Your task to perform on an android device: turn off translation in the chrome app Image 0: 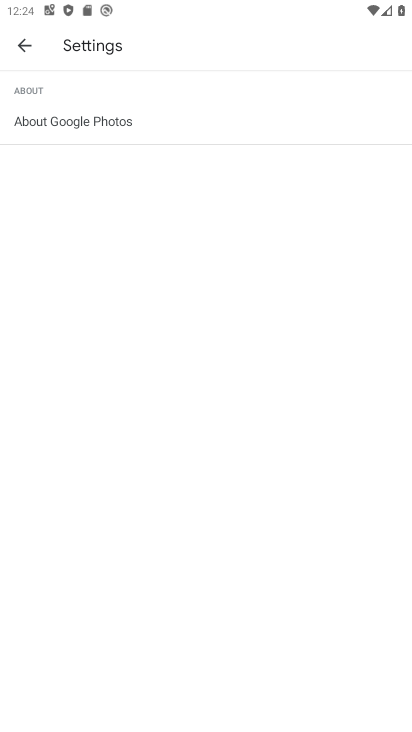
Step 0: press home button
Your task to perform on an android device: turn off translation in the chrome app Image 1: 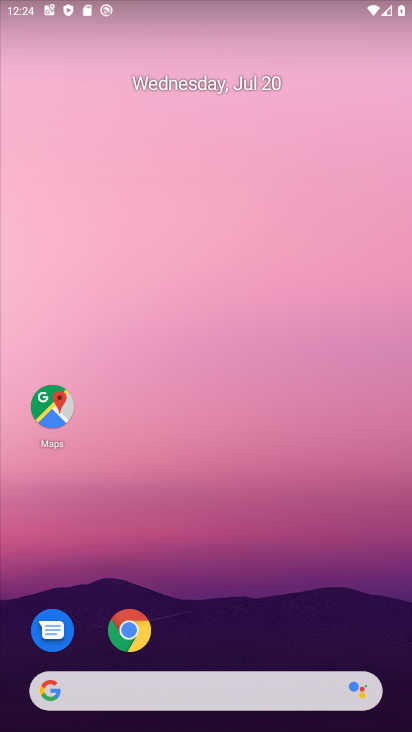
Step 1: click (121, 629)
Your task to perform on an android device: turn off translation in the chrome app Image 2: 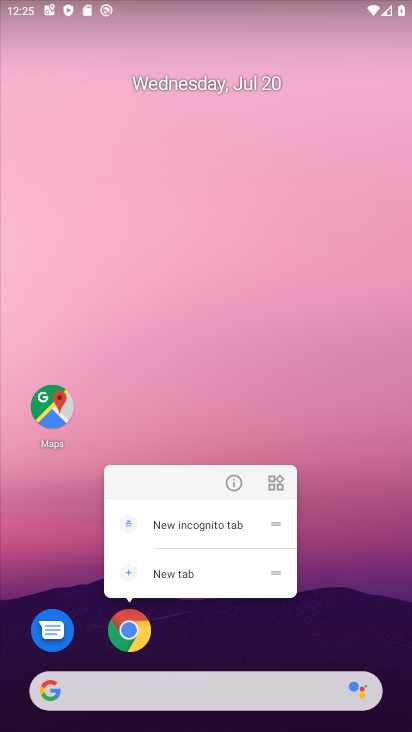
Step 2: click (121, 629)
Your task to perform on an android device: turn off translation in the chrome app Image 3: 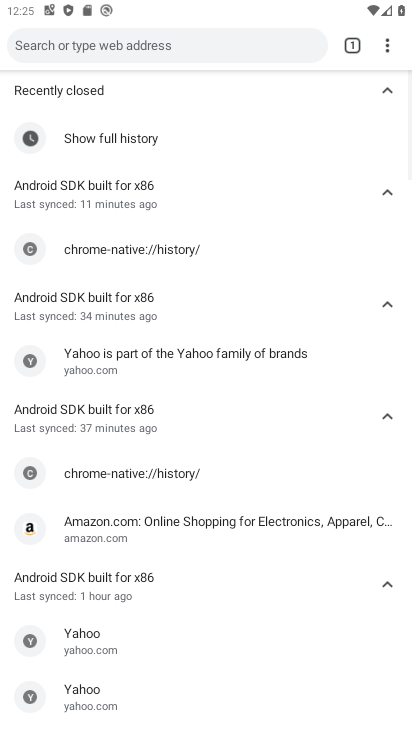
Step 3: drag from (383, 43) to (209, 383)
Your task to perform on an android device: turn off translation in the chrome app Image 4: 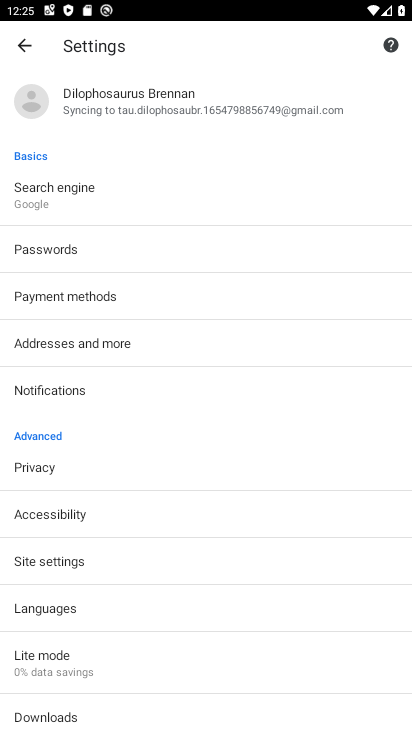
Step 4: click (53, 608)
Your task to perform on an android device: turn off translation in the chrome app Image 5: 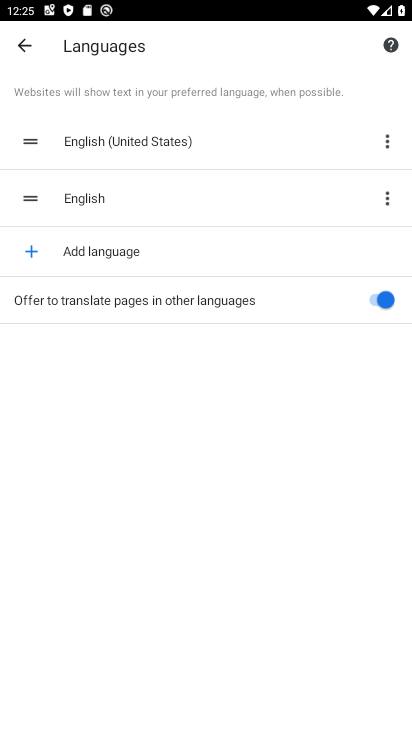
Step 5: click (374, 300)
Your task to perform on an android device: turn off translation in the chrome app Image 6: 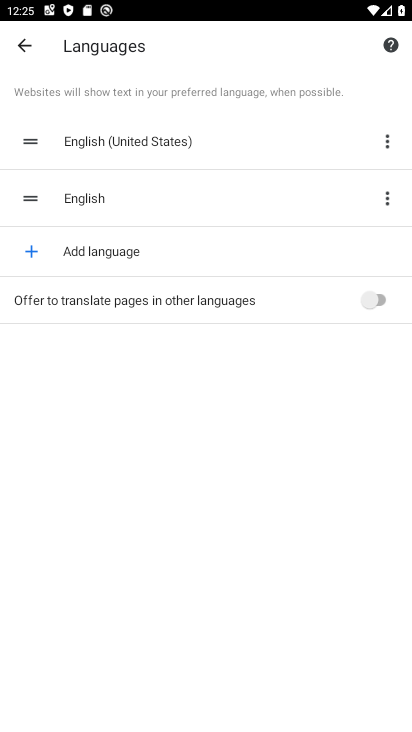
Step 6: task complete